Your task to perform on an android device: turn on translation in the chrome app Image 0: 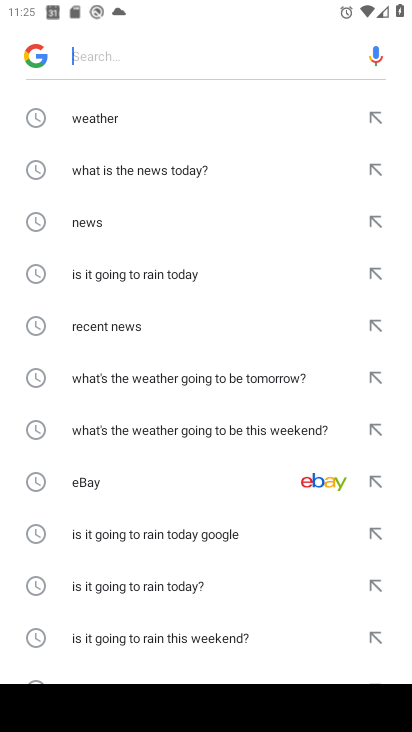
Step 0: press back button
Your task to perform on an android device: turn on translation in the chrome app Image 1: 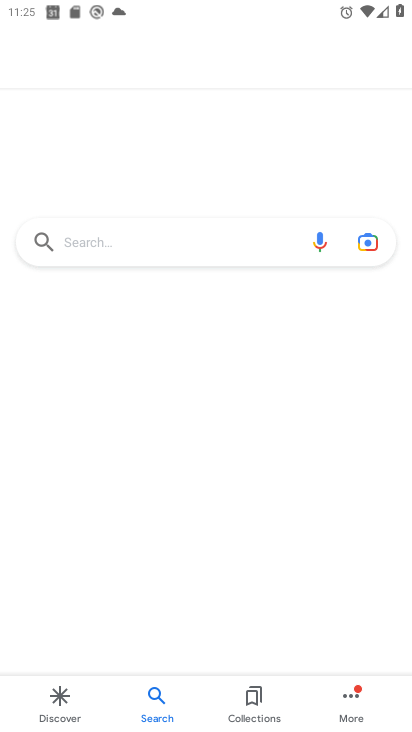
Step 1: press home button
Your task to perform on an android device: turn on translation in the chrome app Image 2: 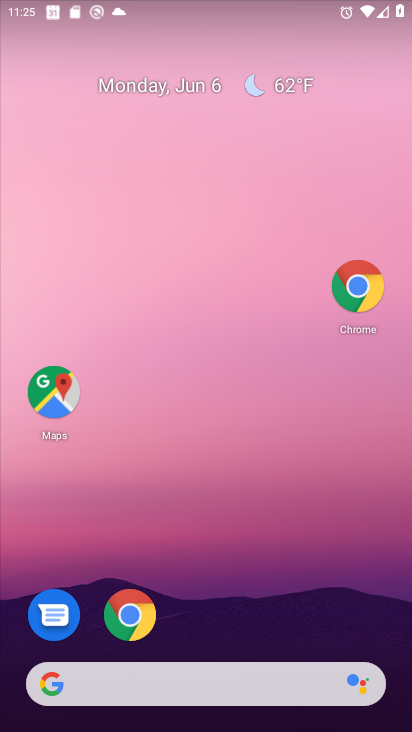
Step 2: drag from (265, 544) to (206, 142)
Your task to perform on an android device: turn on translation in the chrome app Image 3: 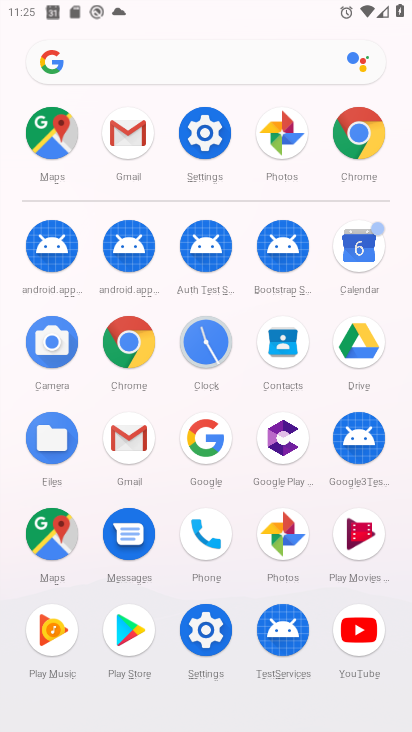
Step 3: click (366, 145)
Your task to perform on an android device: turn on translation in the chrome app Image 4: 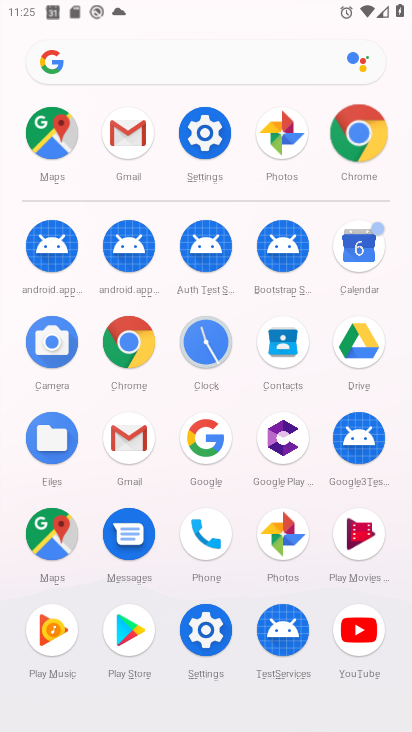
Step 4: click (366, 145)
Your task to perform on an android device: turn on translation in the chrome app Image 5: 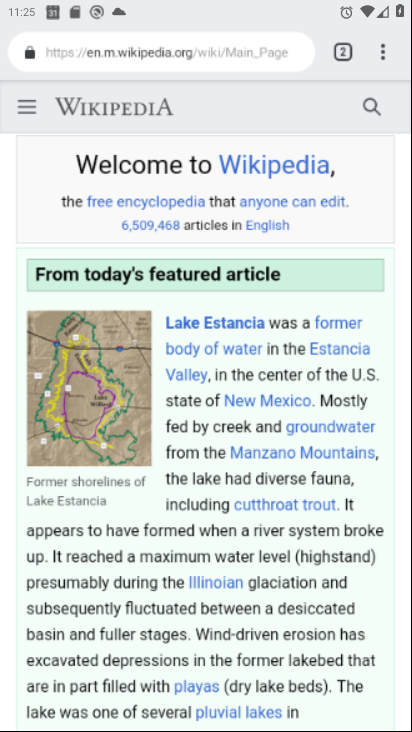
Step 5: click (366, 145)
Your task to perform on an android device: turn on translation in the chrome app Image 6: 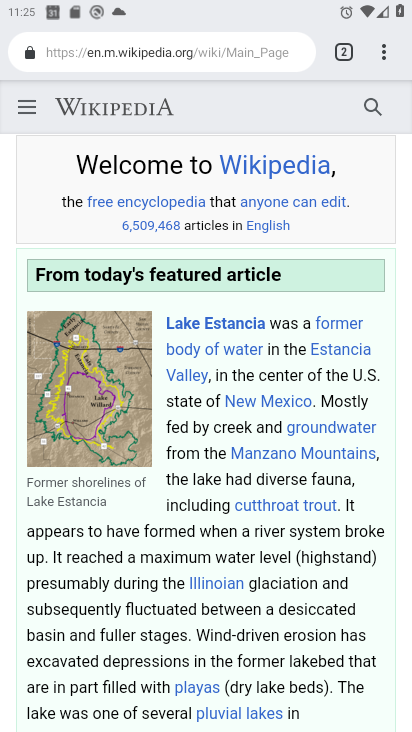
Step 6: drag from (384, 62) to (182, 388)
Your task to perform on an android device: turn on translation in the chrome app Image 7: 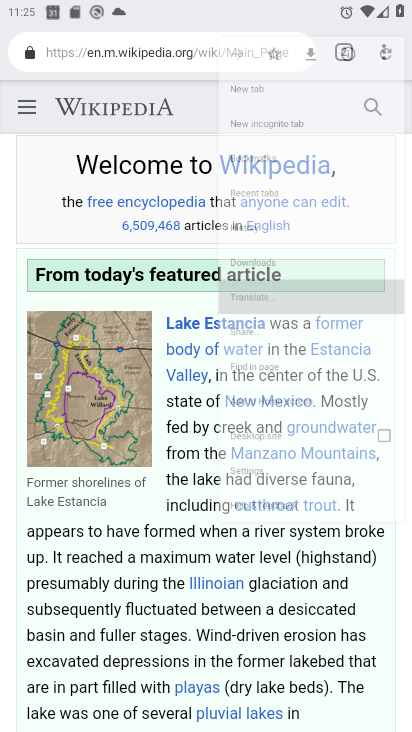
Step 7: click (181, 387)
Your task to perform on an android device: turn on translation in the chrome app Image 8: 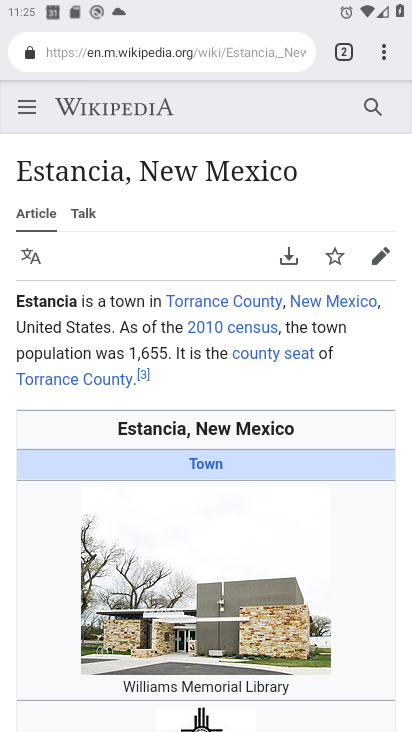
Step 8: drag from (381, 52) to (185, 632)
Your task to perform on an android device: turn on translation in the chrome app Image 9: 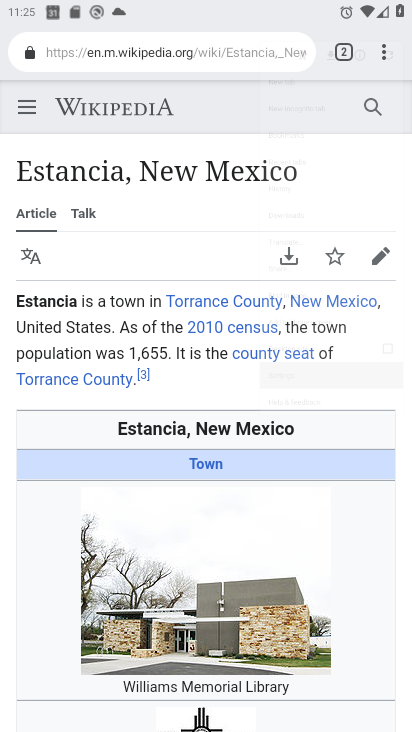
Step 9: click (184, 633)
Your task to perform on an android device: turn on translation in the chrome app Image 10: 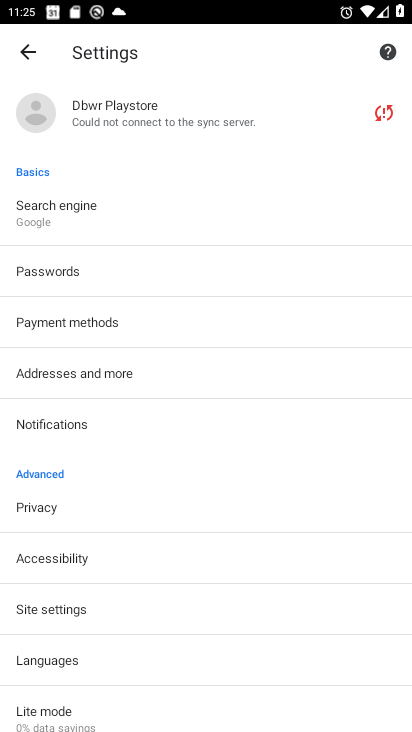
Step 10: click (37, 647)
Your task to perform on an android device: turn on translation in the chrome app Image 11: 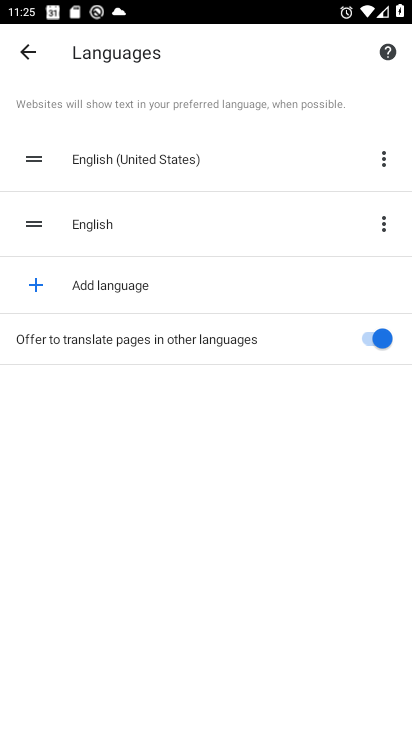
Step 11: task complete